Your task to perform on an android device: change the clock display to digital Image 0: 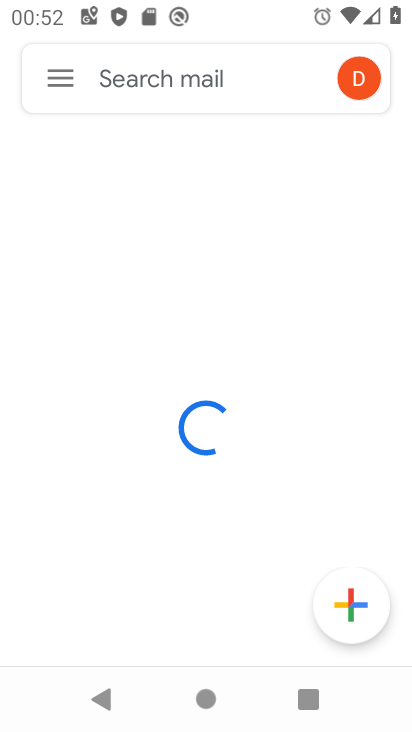
Step 0: press home button
Your task to perform on an android device: change the clock display to digital Image 1: 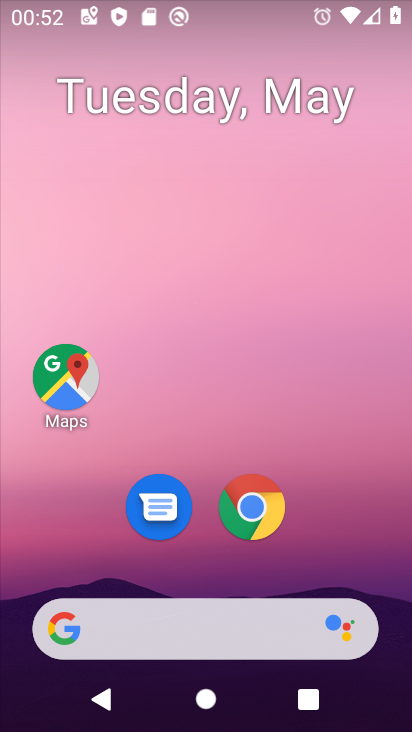
Step 1: drag from (215, 590) to (212, 242)
Your task to perform on an android device: change the clock display to digital Image 2: 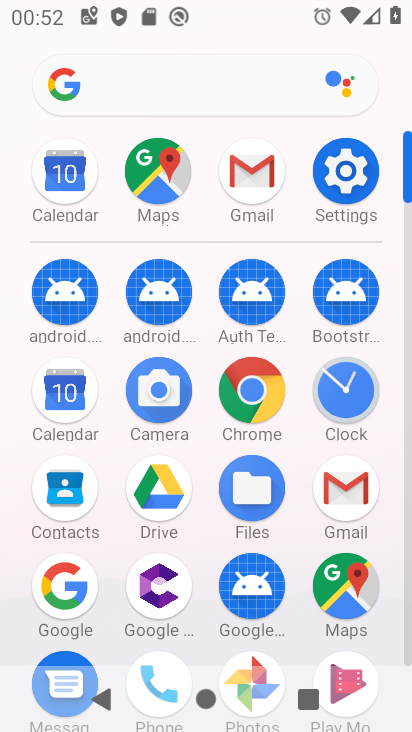
Step 2: click (348, 412)
Your task to perform on an android device: change the clock display to digital Image 3: 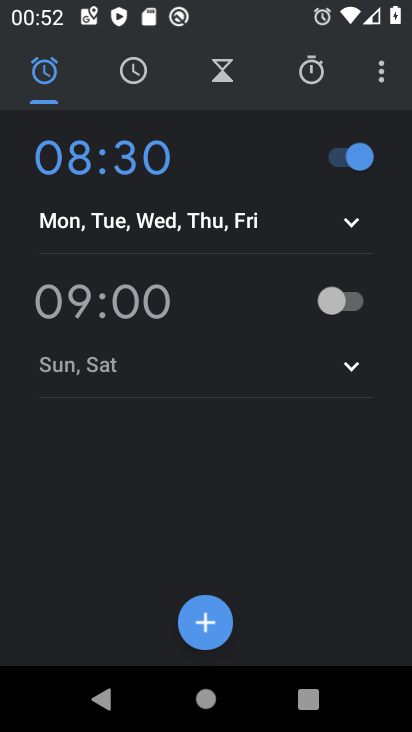
Step 3: click (382, 70)
Your task to perform on an android device: change the clock display to digital Image 4: 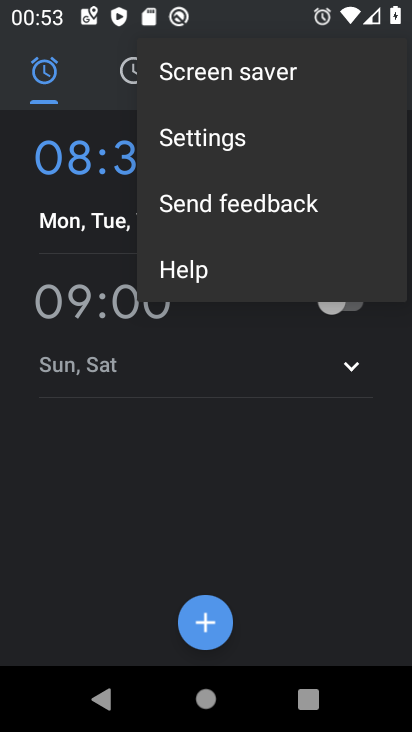
Step 4: click (204, 130)
Your task to perform on an android device: change the clock display to digital Image 5: 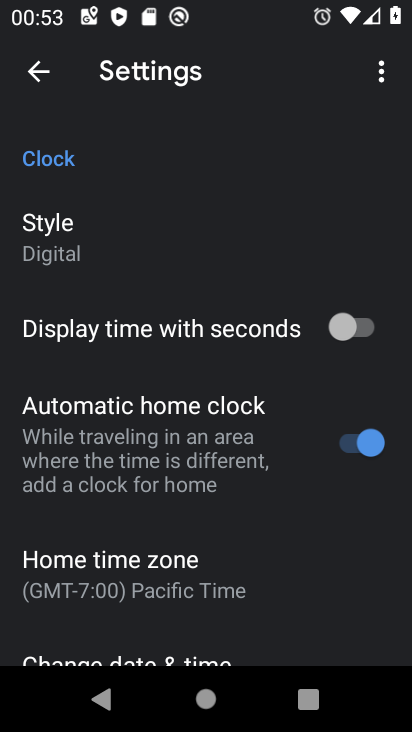
Step 5: click (59, 248)
Your task to perform on an android device: change the clock display to digital Image 6: 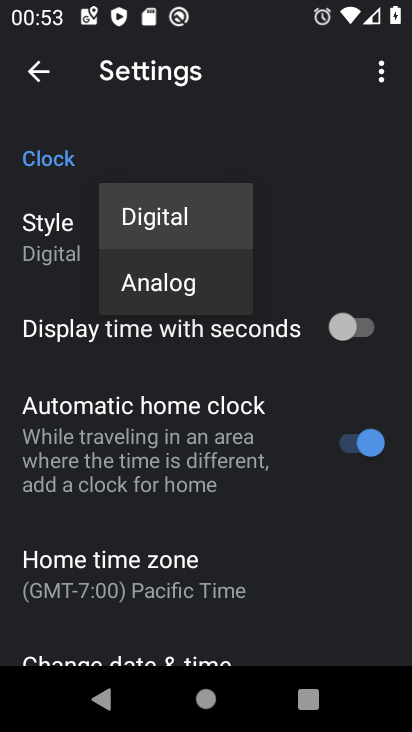
Step 6: click (151, 189)
Your task to perform on an android device: change the clock display to digital Image 7: 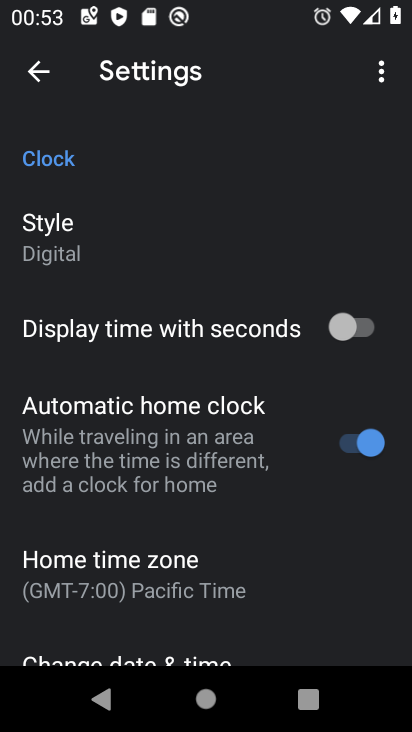
Step 7: task complete